Your task to perform on an android device: turn off data saver in the chrome app Image 0: 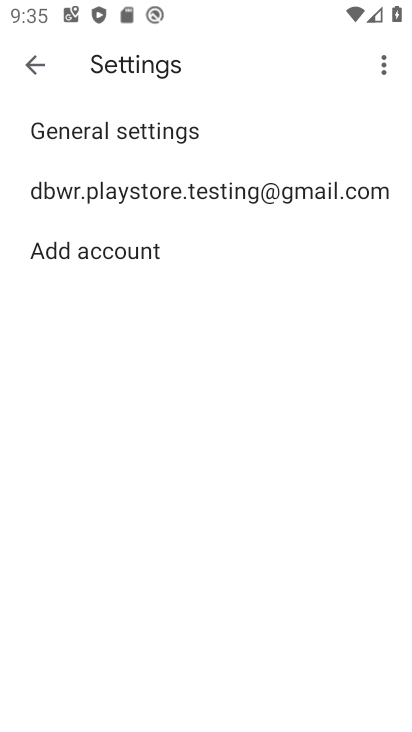
Step 0: press home button
Your task to perform on an android device: turn off data saver in the chrome app Image 1: 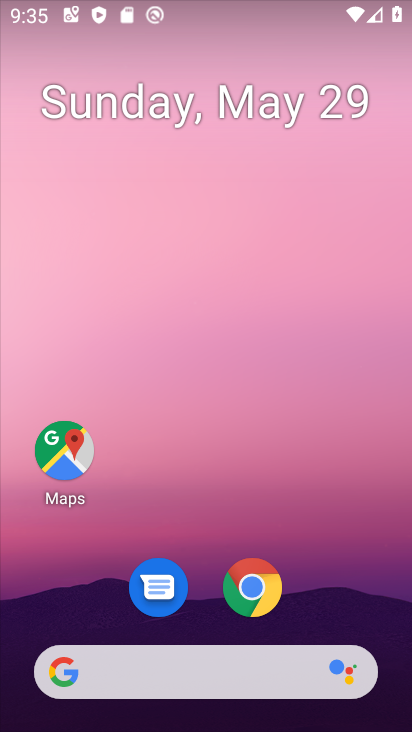
Step 1: click (240, 585)
Your task to perform on an android device: turn off data saver in the chrome app Image 2: 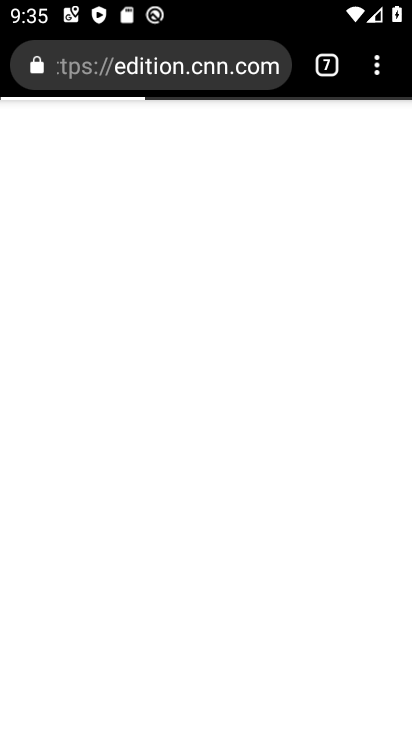
Step 2: drag from (378, 56) to (175, 628)
Your task to perform on an android device: turn off data saver in the chrome app Image 3: 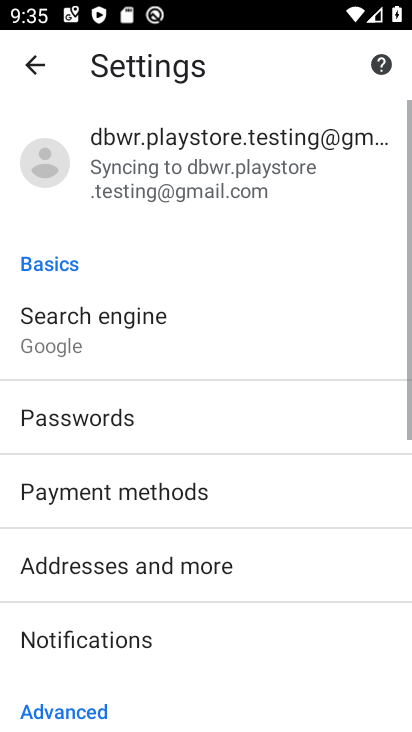
Step 3: drag from (177, 624) to (257, 144)
Your task to perform on an android device: turn off data saver in the chrome app Image 4: 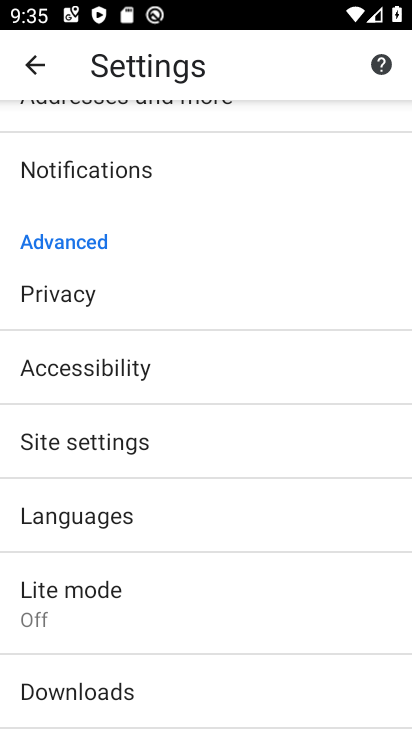
Step 4: drag from (204, 582) to (252, 316)
Your task to perform on an android device: turn off data saver in the chrome app Image 5: 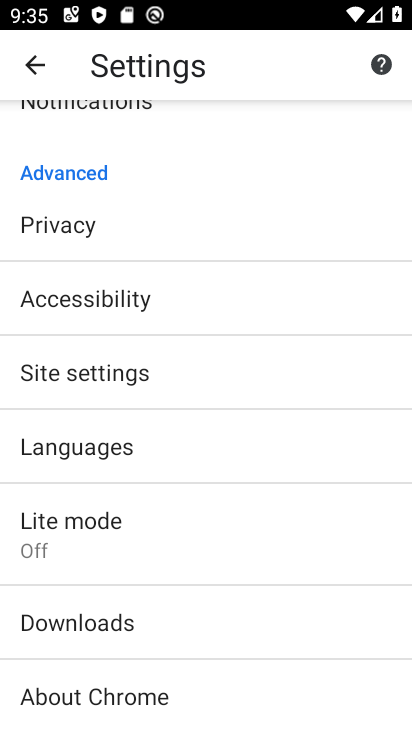
Step 5: click (127, 549)
Your task to perform on an android device: turn off data saver in the chrome app Image 6: 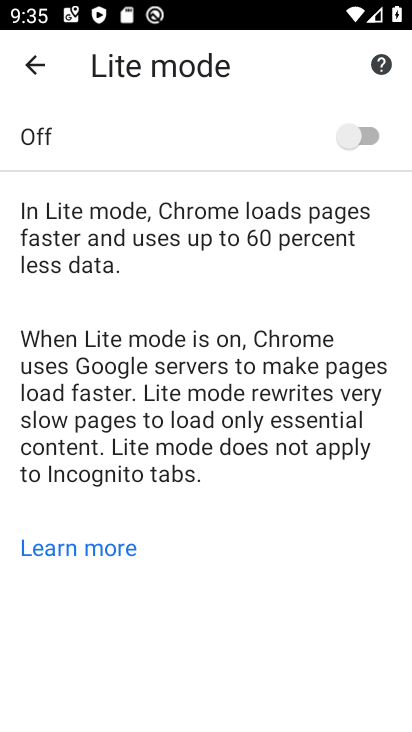
Step 6: task complete